Your task to perform on an android device: Open Yahoo.com Image 0: 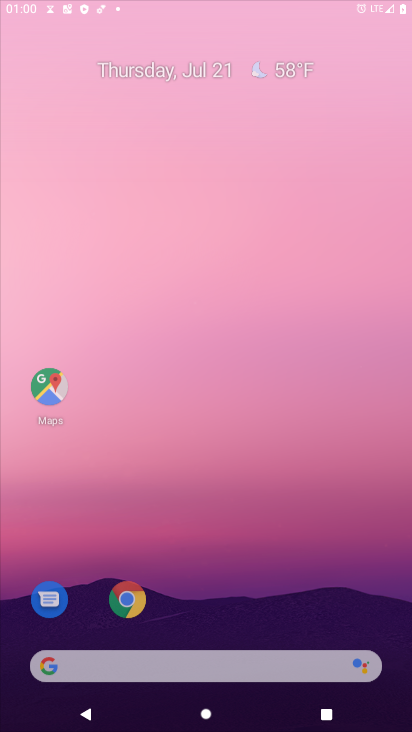
Step 0: press home button
Your task to perform on an android device: Open Yahoo.com Image 1: 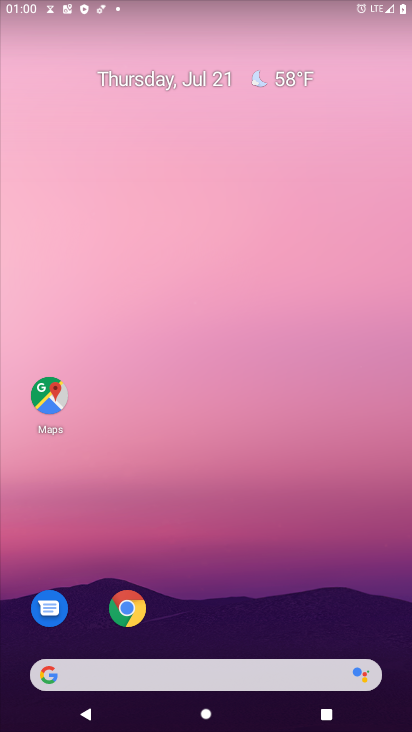
Step 1: click (124, 608)
Your task to perform on an android device: Open Yahoo.com Image 2: 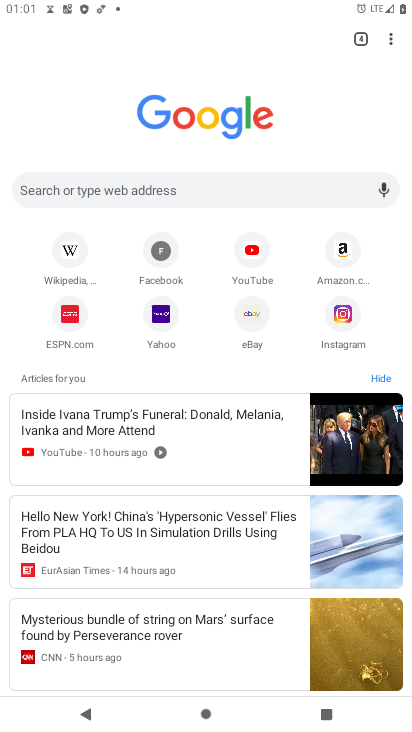
Step 2: click (156, 313)
Your task to perform on an android device: Open Yahoo.com Image 3: 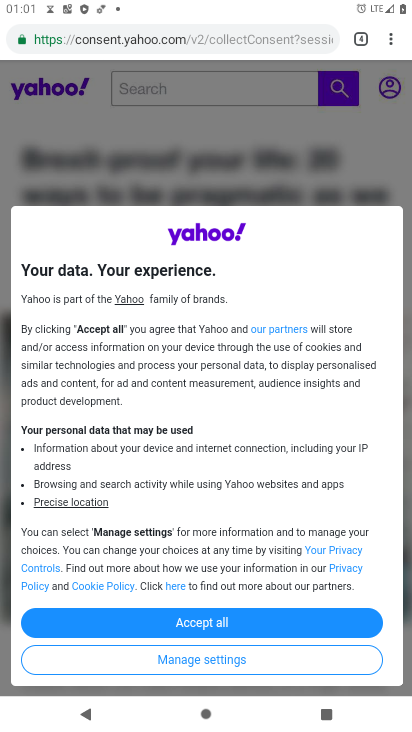
Step 3: click (202, 612)
Your task to perform on an android device: Open Yahoo.com Image 4: 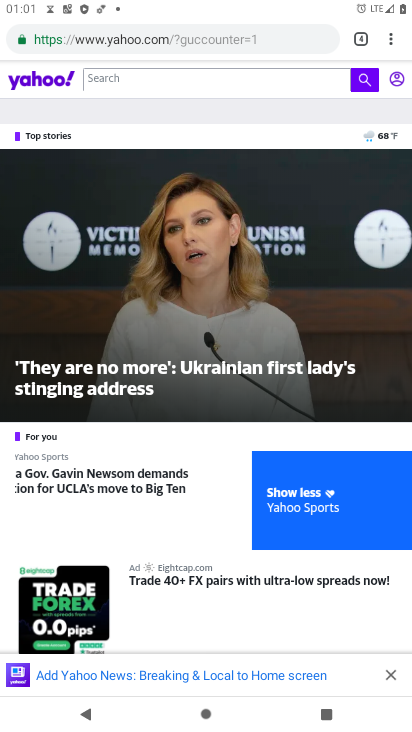
Step 4: click (382, 671)
Your task to perform on an android device: Open Yahoo.com Image 5: 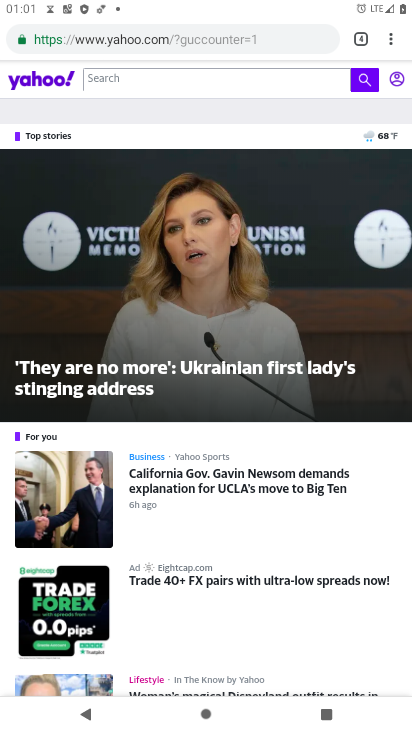
Step 5: task complete